Your task to perform on an android device: open device folders in google photos Image 0: 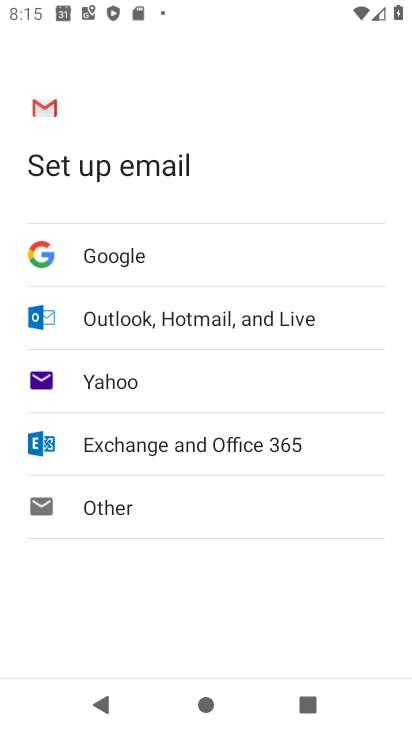
Step 0: press back button
Your task to perform on an android device: open device folders in google photos Image 1: 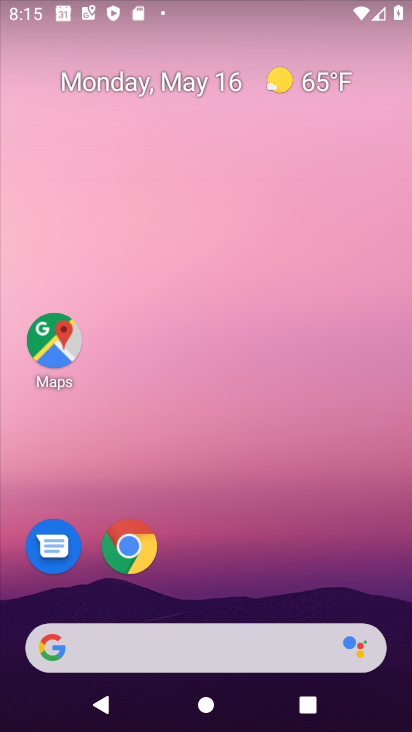
Step 1: drag from (231, 548) to (220, 207)
Your task to perform on an android device: open device folders in google photos Image 2: 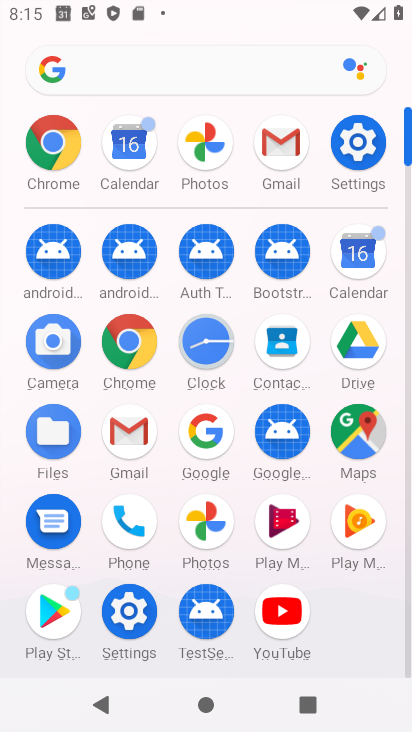
Step 2: click (206, 151)
Your task to perform on an android device: open device folders in google photos Image 3: 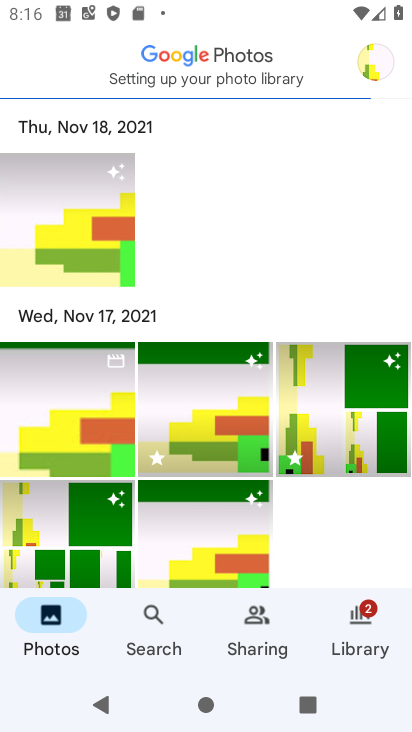
Step 3: click (381, 624)
Your task to perform on an android device: open device folders in google photos Image 4: 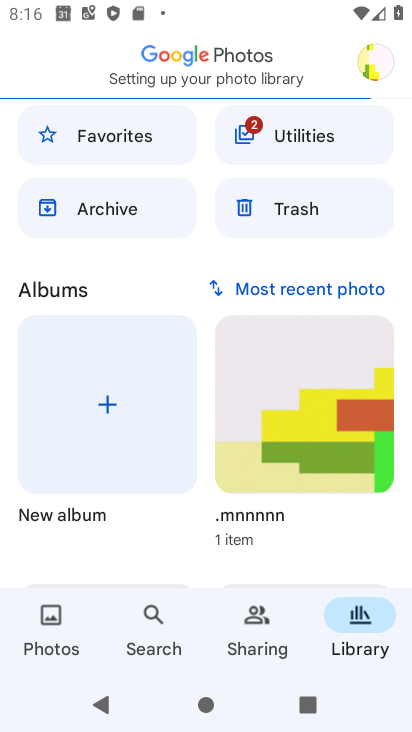
Step 4: task complete